Your task to perform on an android device: check data usage Image 0: 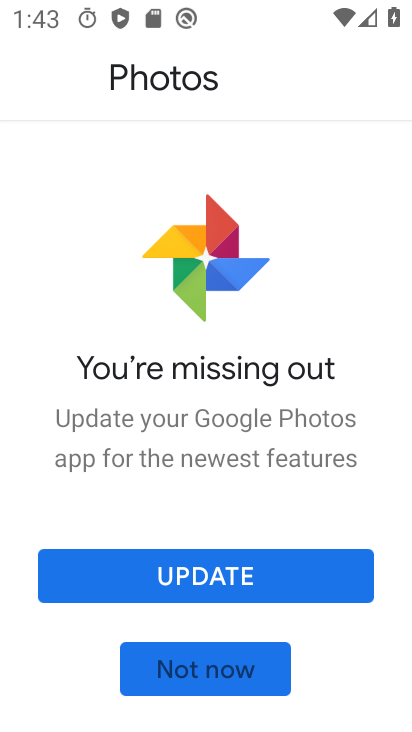
Step 0: press home button
Your task to perform on an android device: check data usage Image 1: 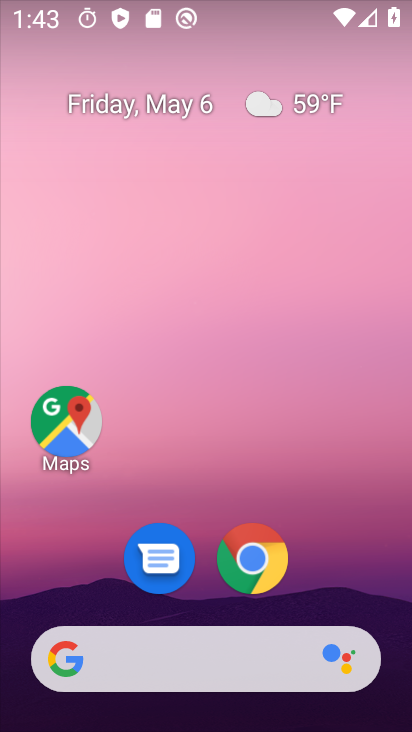
Step 1: drag from (209, 727) to (179, 71)
Your task to perform on an android device: check data usage Image 2: 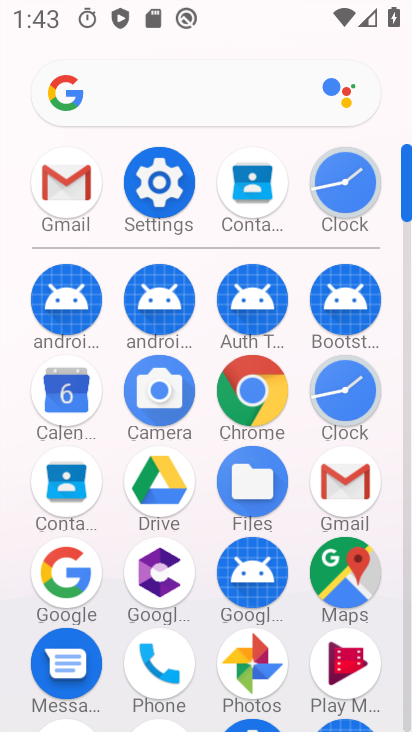
Step 2: click (161, 186)
Your task to perform on an android device: check data usage Image 3: 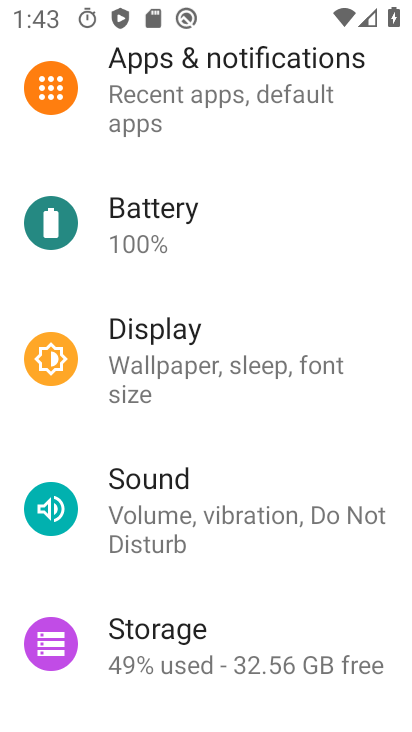
Step 3: drag from (200, 162) to (223, 548)
Your task to perform on an android device: check data usage Image 4: 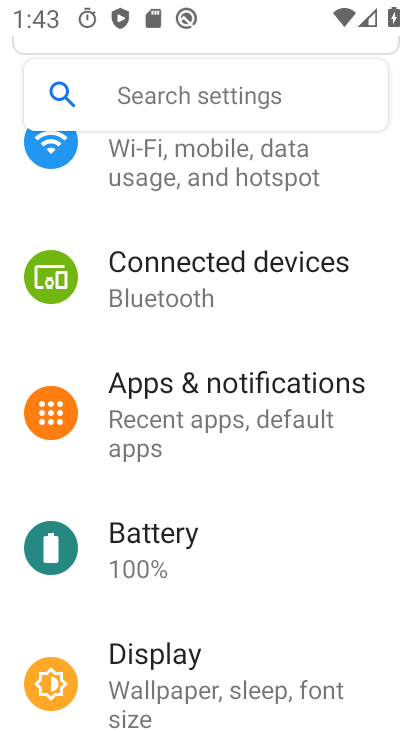
Step 4: drag from (189, 637) to (177, 213)
Your task to perform on an android device: check data usage Image 5: 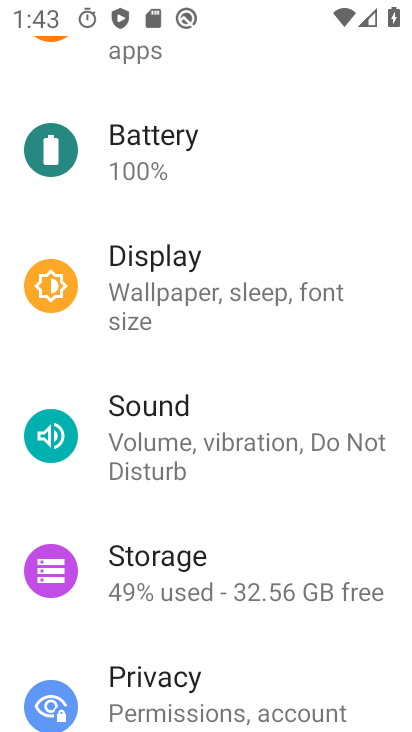
Step 5: drag from (193, 214) to (191, 454)
Your task to perform on an android device: check data usage Image 6: 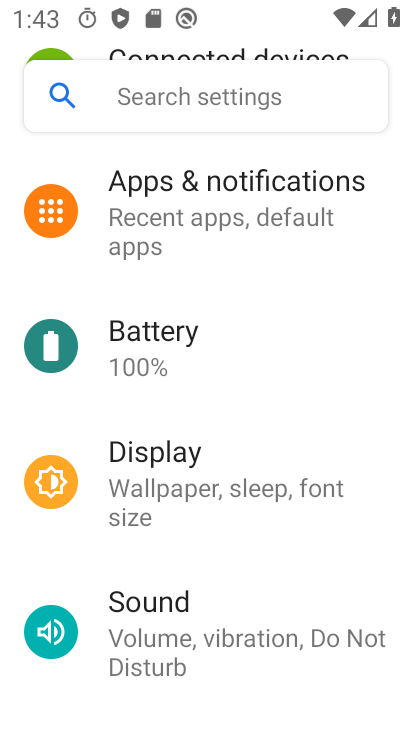
Step 6: drag from (217, 164) to (213, 585)
Your task to perform on an android device: check data usage Image 7: 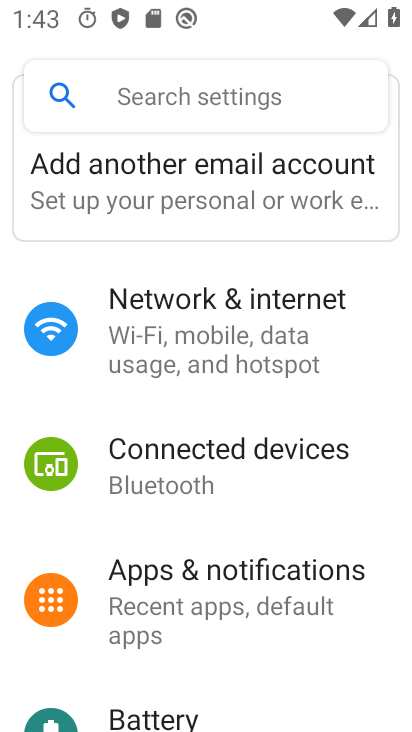
Step 7: click (202, 355)
Your task to perform on an android device: check data usage Image 8: 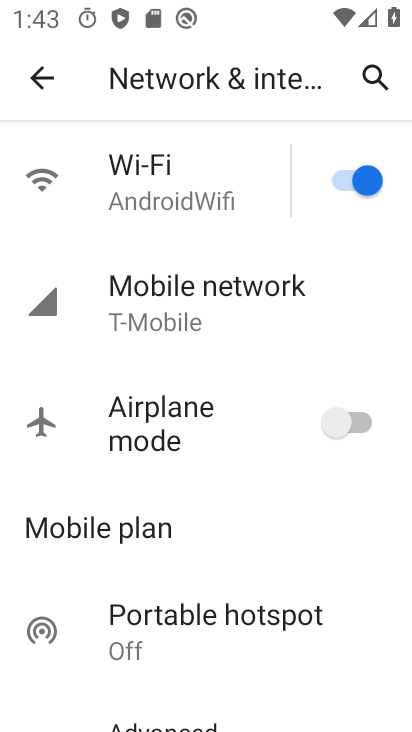
Step 8: click (177, 306)
Your task to perform on an android device: check data usage Image 9: 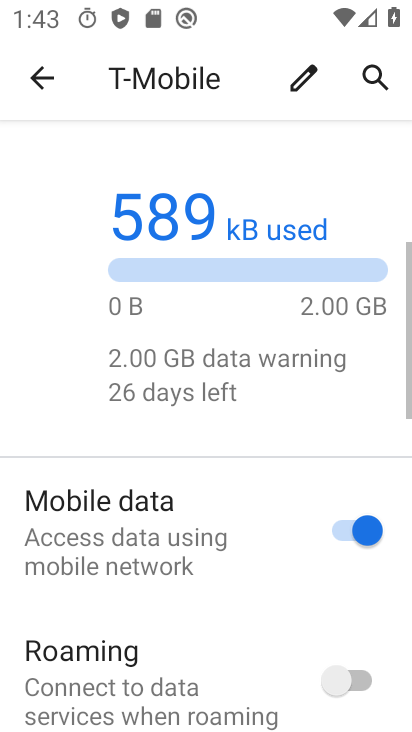
Step 9: drag from (176, 657) to (178, 288)
Your task to perform on an android device: check data usage Image 10: 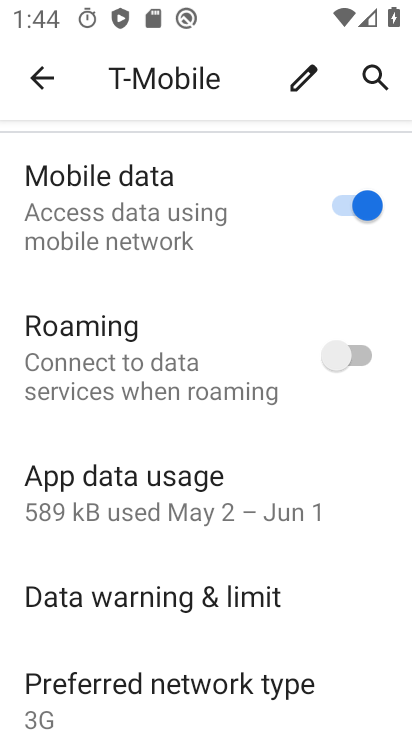
Step 10: drag from (185, 641) to (196, 371)
Your task to perform on an android device: check data usage Image 11: 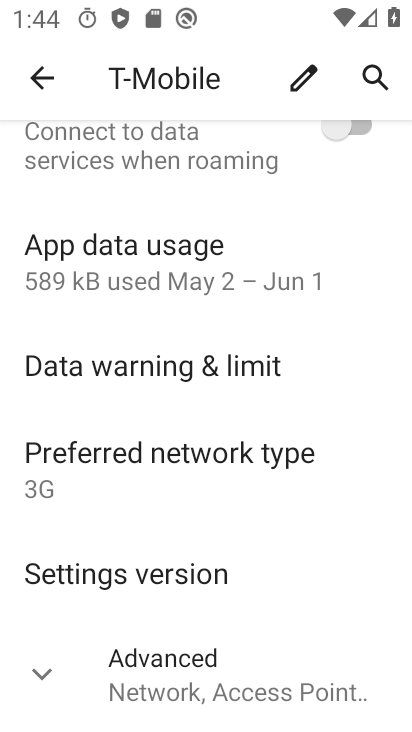
Step 11: click (146, 272)
Your task to perform on an android device: check data usage Image 12: 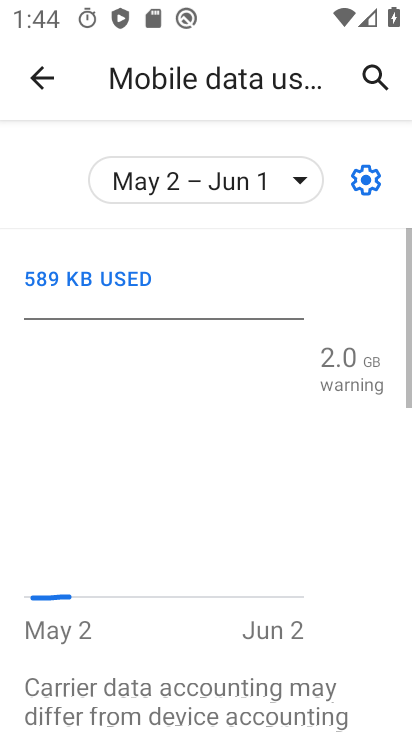
Step 12: task complete